Your task to perform on an android device: change notification settings in the gmail app Image 0: 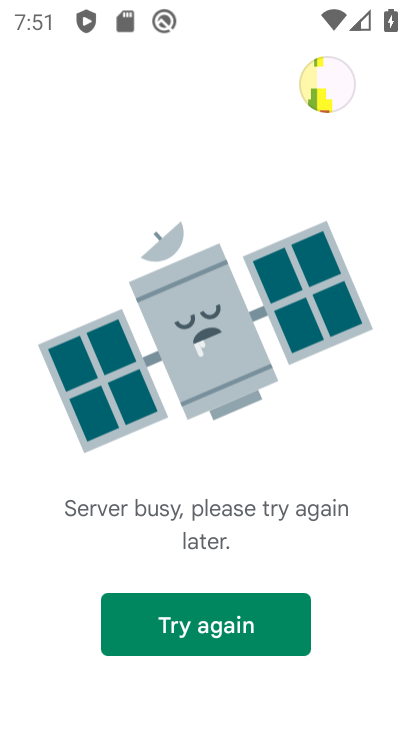
Step 0: press home button
Your task to perform on an android device: change notification settings in the gmail app Image 1: 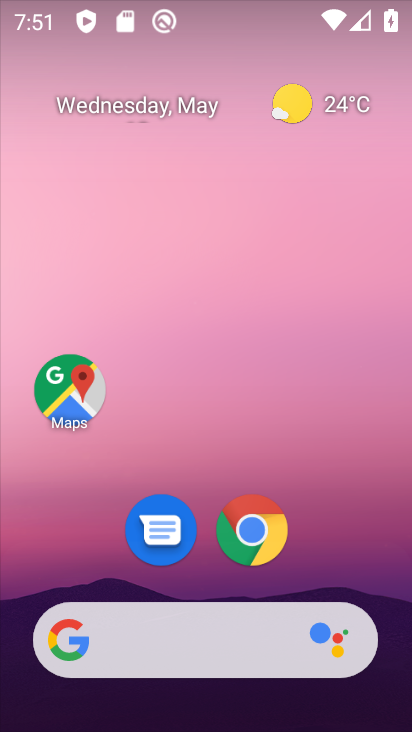
Step 1: drag from (387, 542) to (381, 125)
Your task to perform on an android device: change notification settings in the gmail app Image 2: 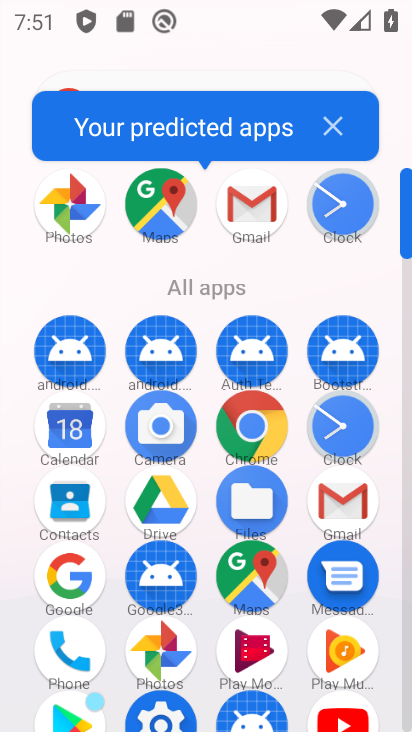
Step 2: drag from (210, 623) to (213, 396)
Your task to perform on an android device: change notification settings in the gmail app Image 3: 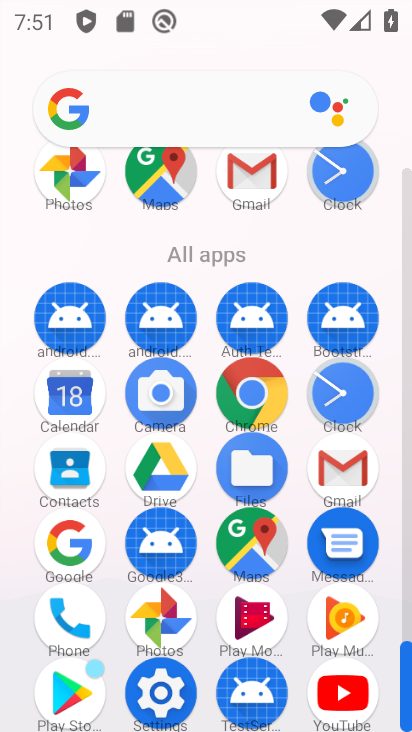
Step 3: click (363, 448)
Your task to perform on an android device: change notification settings in the gmail app Image 4: 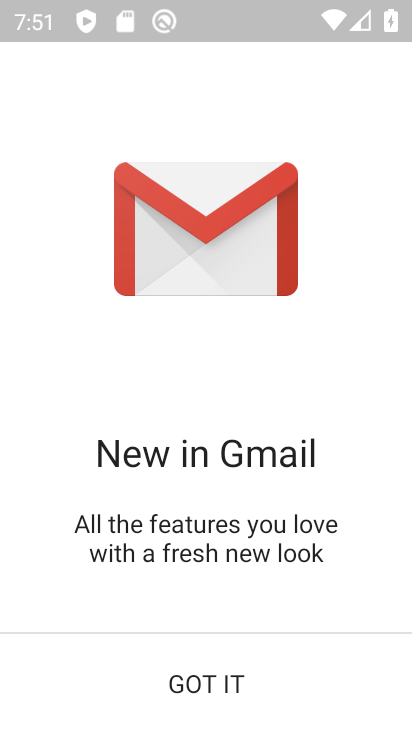
Step 4: click (210, 673)
Your task to perform on an android device: change notification settings in the gmail app Image 5: 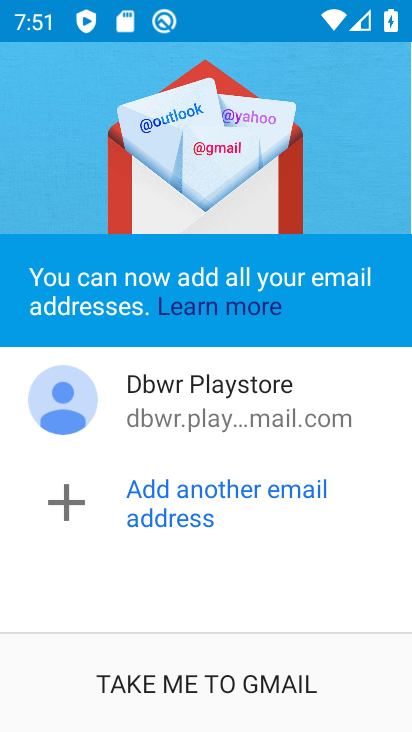
Step 5: click (210, 673)
Your task to perform on an android device: change notification settings in the gmail app Image 6: 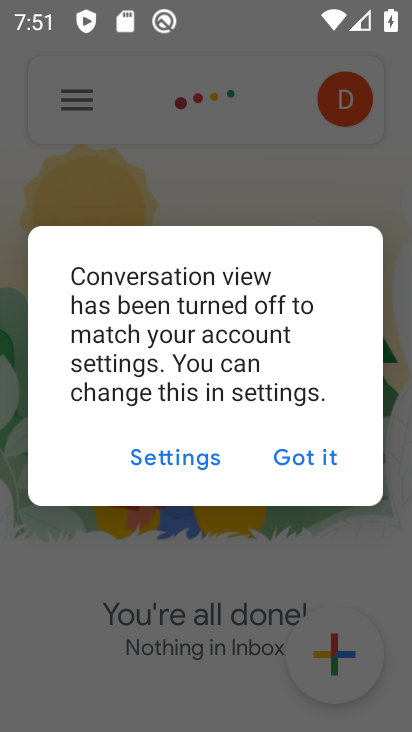
Step 6: click (303, 464)
Your task to perform on an android device: change notification settings in the gmail app Image 7: 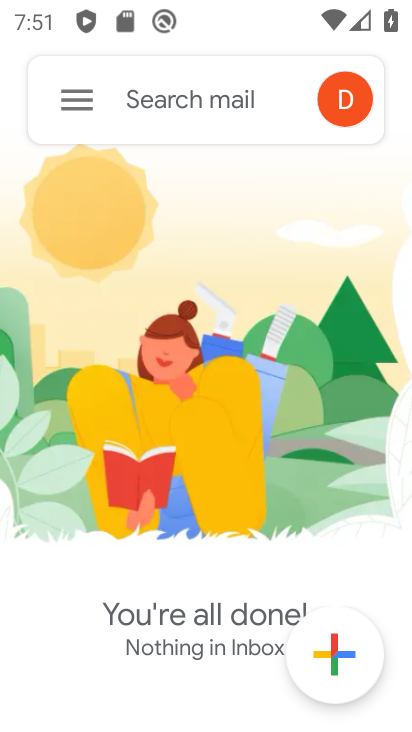
Step 7: click (76, 102)
Your task to perform on an android device: change notification settings in the gmail app Image 8: 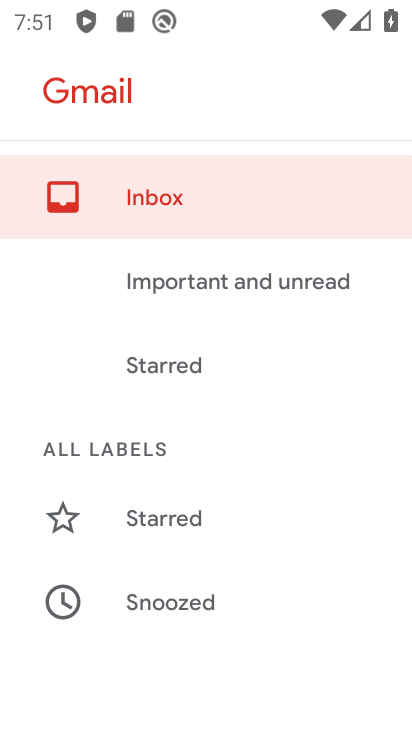
Step 8: drag from (257, 640) to (267, 200)
Your task to perform on an android device: change notification settings in the gmail app Image 9: 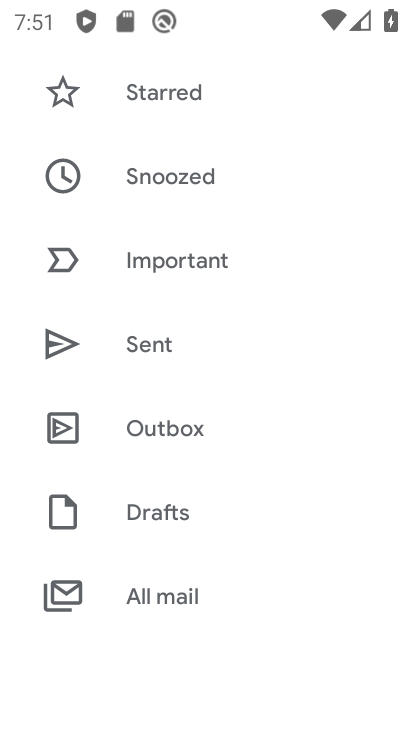
Step 9: drag from (283, 617) to (287, 254)
Your task to perform on an android device: change notification settings in the gmail app Image 10: 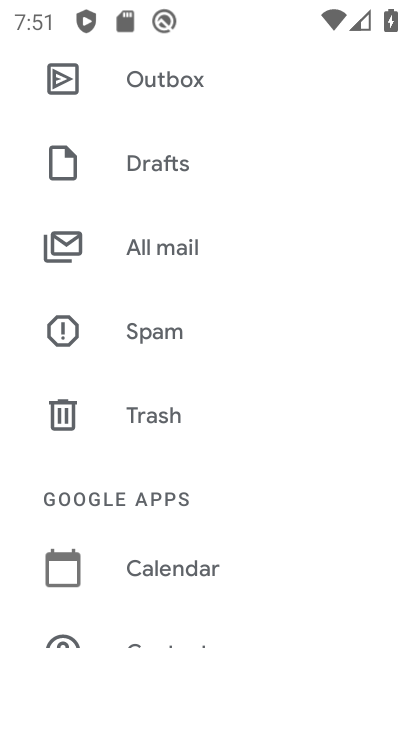
Step 10: drag from (289, 563) to (289, 240)
Your task to perform on an android device: change notification settings in the gmail app Image 11: 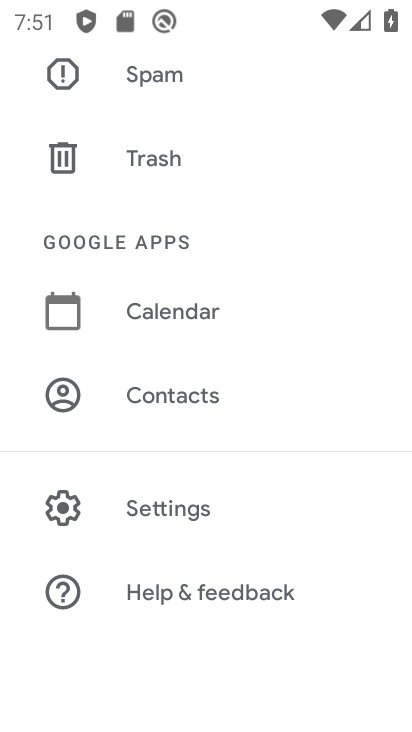
Step 11: click (213, 502)
Your task to perform on an android device: change notification settings in the gmail app Image 12: 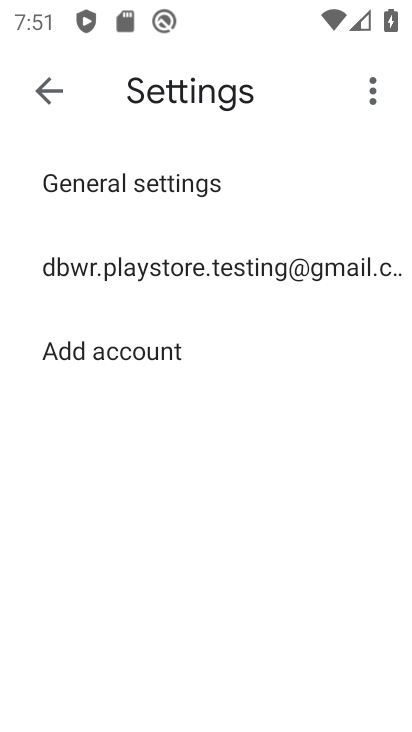
Step 12: click (192, 263)
Your task to perform on an android device: change notification settings in the gmail app Image 13: 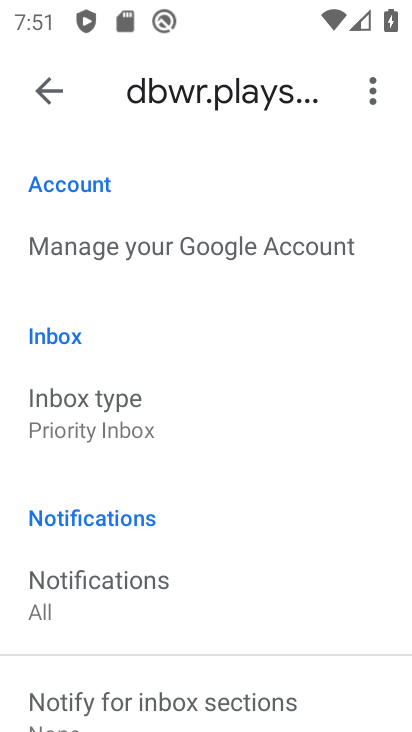
Step 13: click (143, 592)
Your task to perform on an android device: change notification settings in the gmail app Image 14: 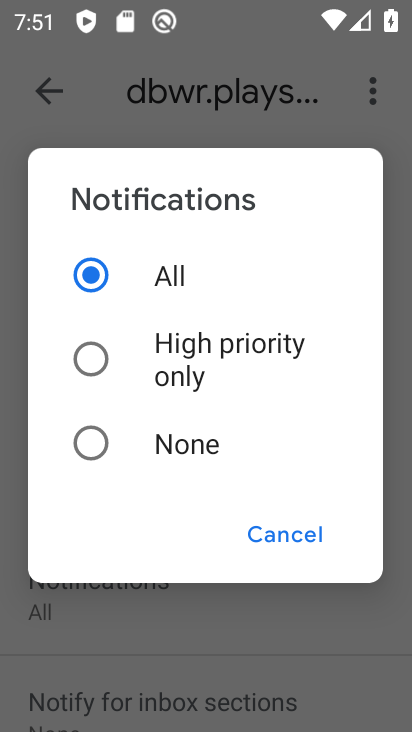
Step 14: click (185, 345)
Your task to perform on an android device: change notification settings in the gmail app Image 15: 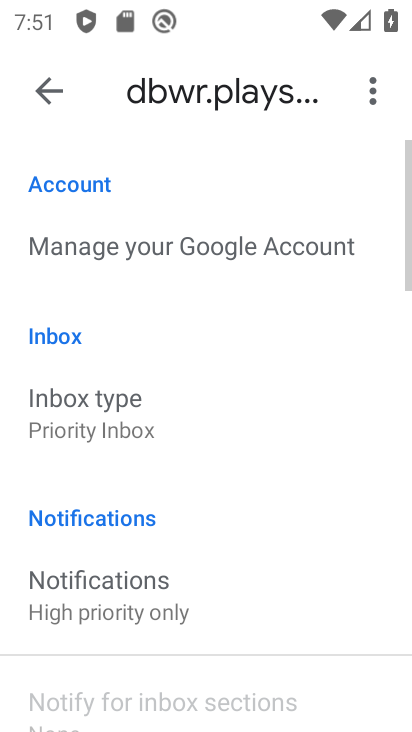
Step 15: task complete